Your task to perform on an android device: Open the map Image 0: 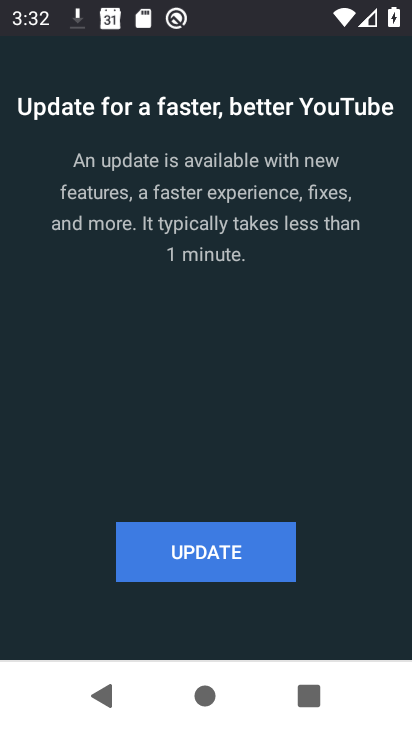
Step 0: press home button
Your task to perform on an android device: Open the map Image 1: 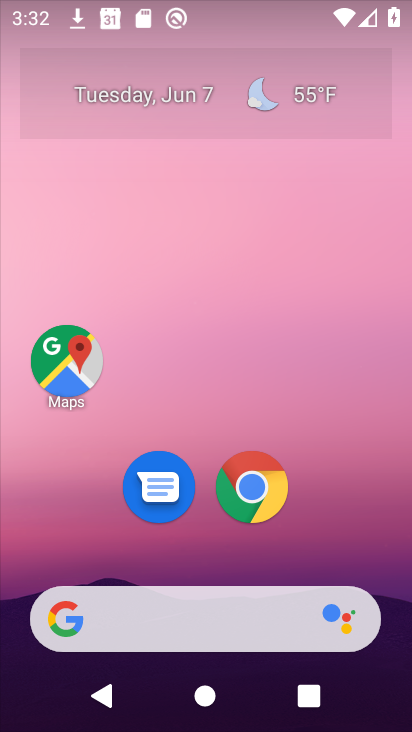
Step 1: click (62, 360)
Your task to perform on an android device: Open the map Image 2: 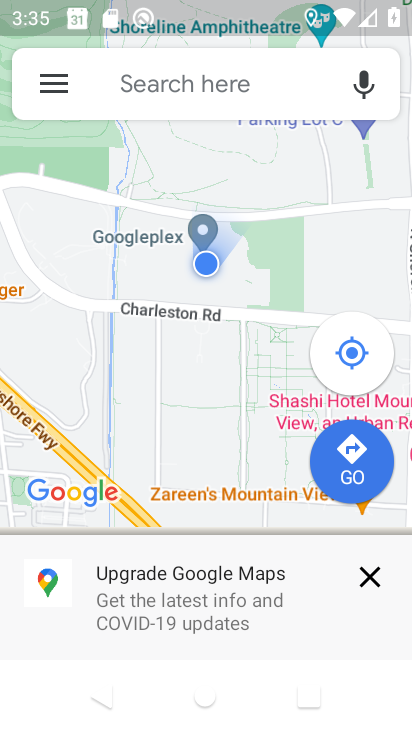
Step 2: task complete